Your task to perform on an android device: change the clock display to show seconds Image 0: 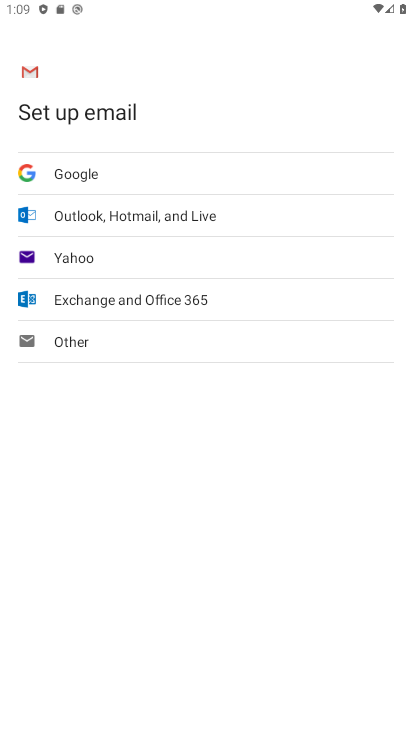
Step 0: press home button
Your task to perform on an android device: change the clock display to show seconds Image 1: 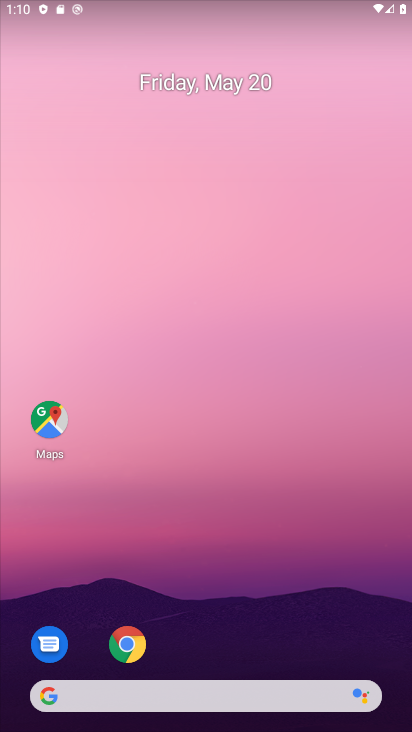
Step 1: drag from (196, 614) to (248, 62)
Your task to perform on an android device: change the clock display to show seconds Image 2: 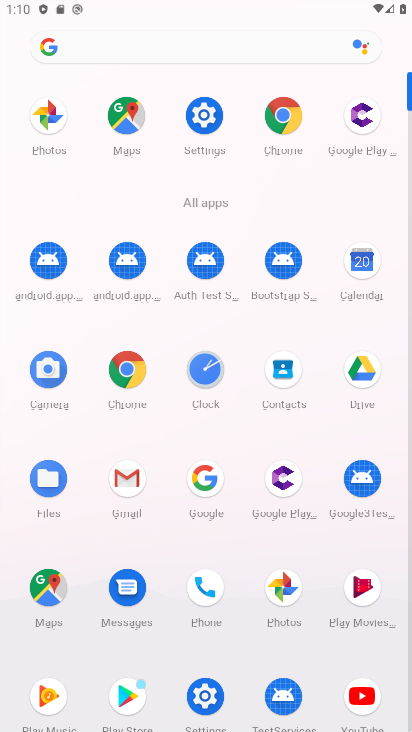
Step 2: click (211, 362)
Your task to perform on an android device: change the clock display to show seconds Image 3: 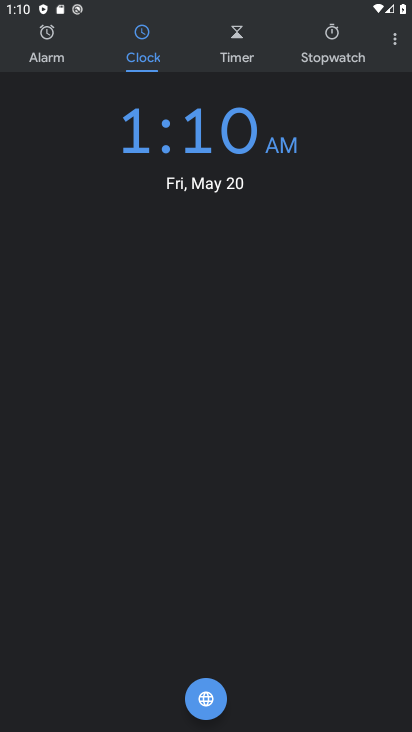
Step 3: click (389, 37)
Your task to perform on an android device: change the clock display to show seconds Image 4: 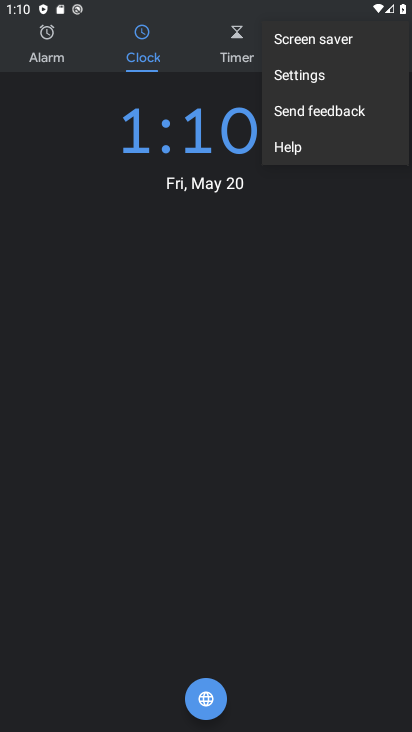
Step 4: click (328, 65)
Your task to perform on an android device: change the clock display to show seconds Image 5: 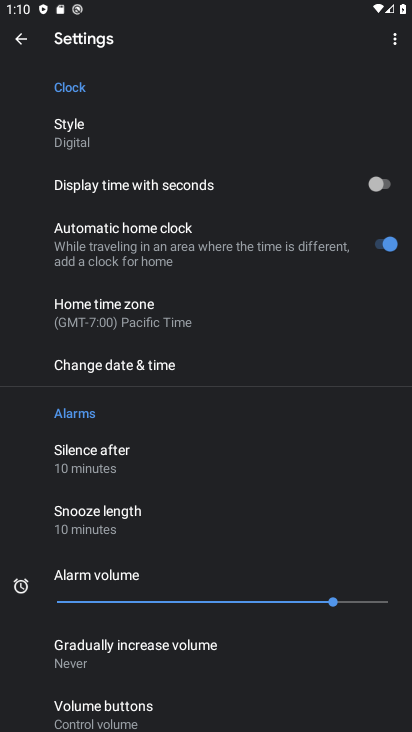
Step 5: click (373, 189)
Your task to perform on an android device: change the clock display to show seconds Image 6: 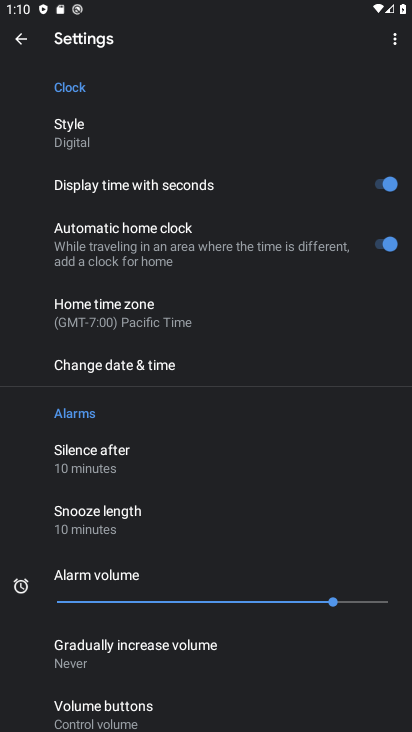
Step 6: task complete